Your task to perform on an android device: Open Maps and search for coffee Image 0: 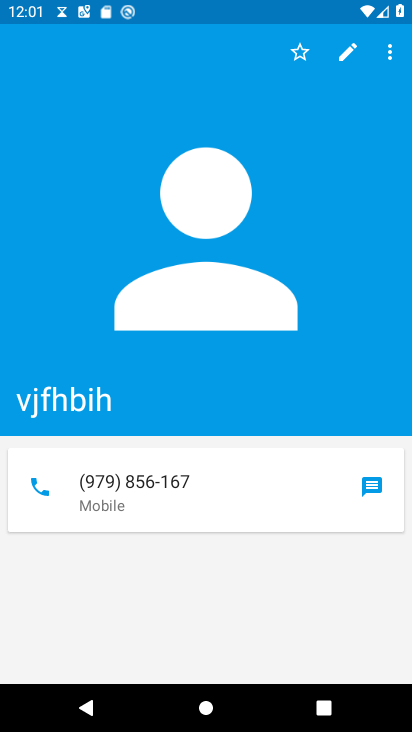
Step 0: press home button
Your task to perform on an android device: Open Maps and search for coffee Image 1: 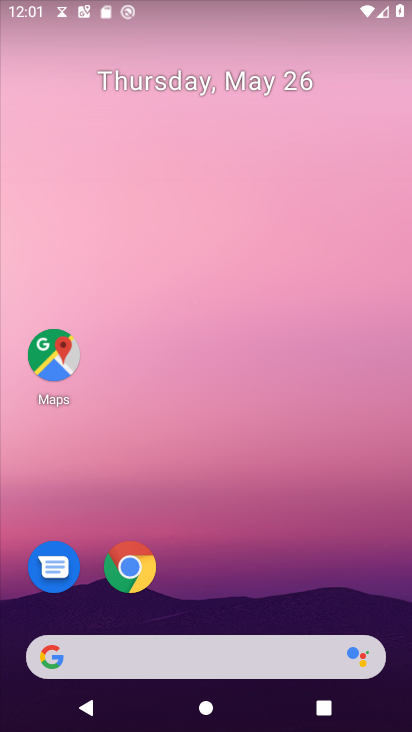
Step 1: click (55, 381)
Your task to perform on an android device: Open Maps and search for coffee Image 2: 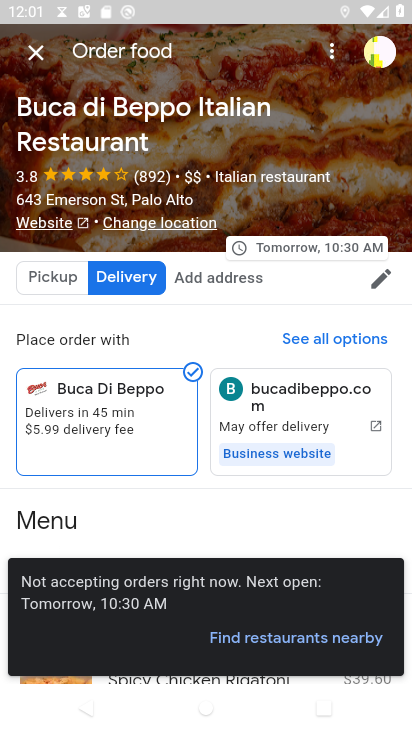
Step 2: click (43, 56)
Your task to perform on an android device: Open Maps and search for coffee Image 3: 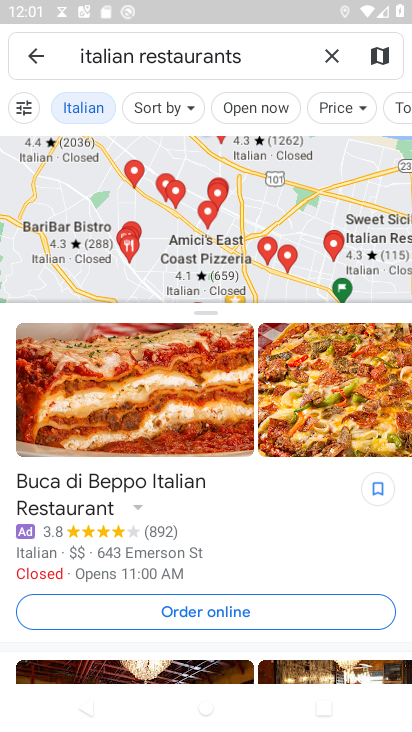
Step 3: click (360, 53)
Your task to perform on an android device: Open Maps and search for coffee Image 4: 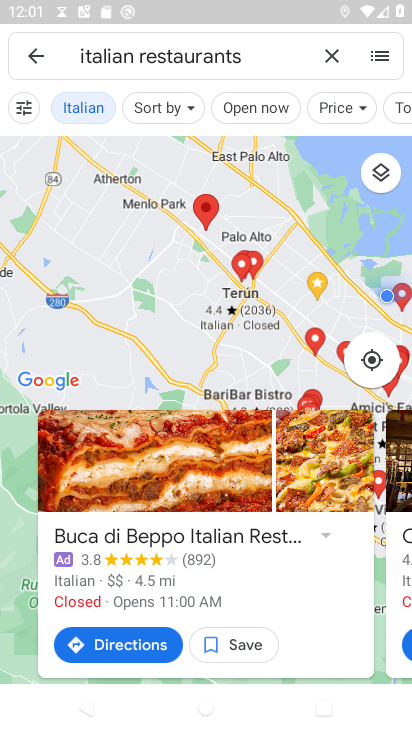
Step 4: click (325, 55)
Your task to perform on an android device: Open Maps and search for coffee Image 5: 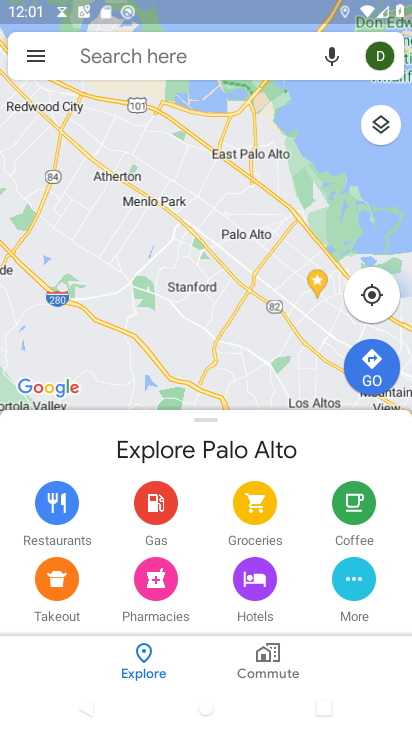
Step 5: click (240, 60)
Your task to perform on an android device: Open Maps and search for coffee Image 6: 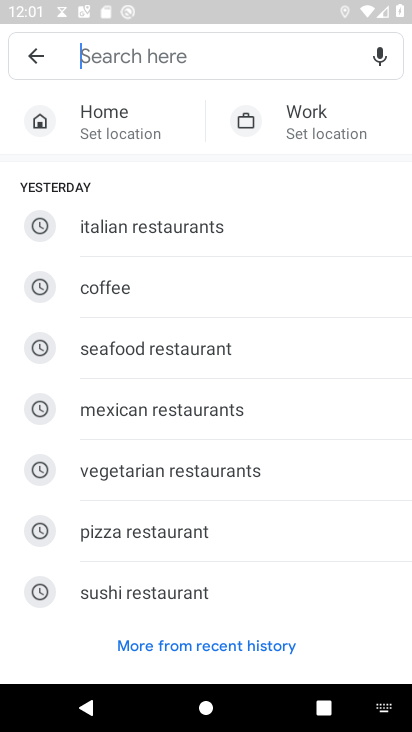
Step 6: click (127, 293)
Your task to perform on an android device: Open Maps and search for coffee Image 7: 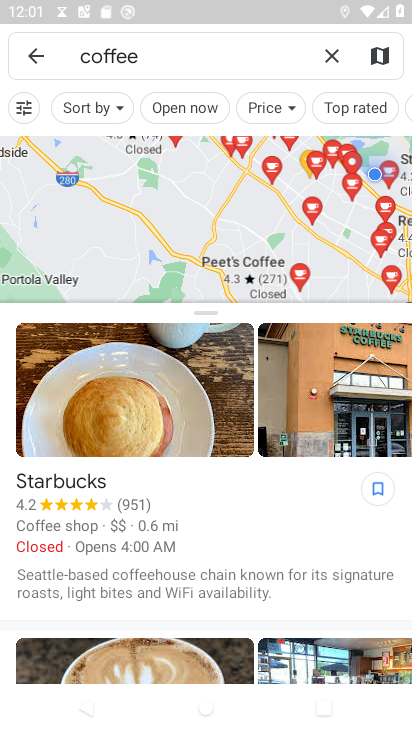
Step 7: task complete